Your task to perform on an android device: search for starred emails in the gmail app Image 0: 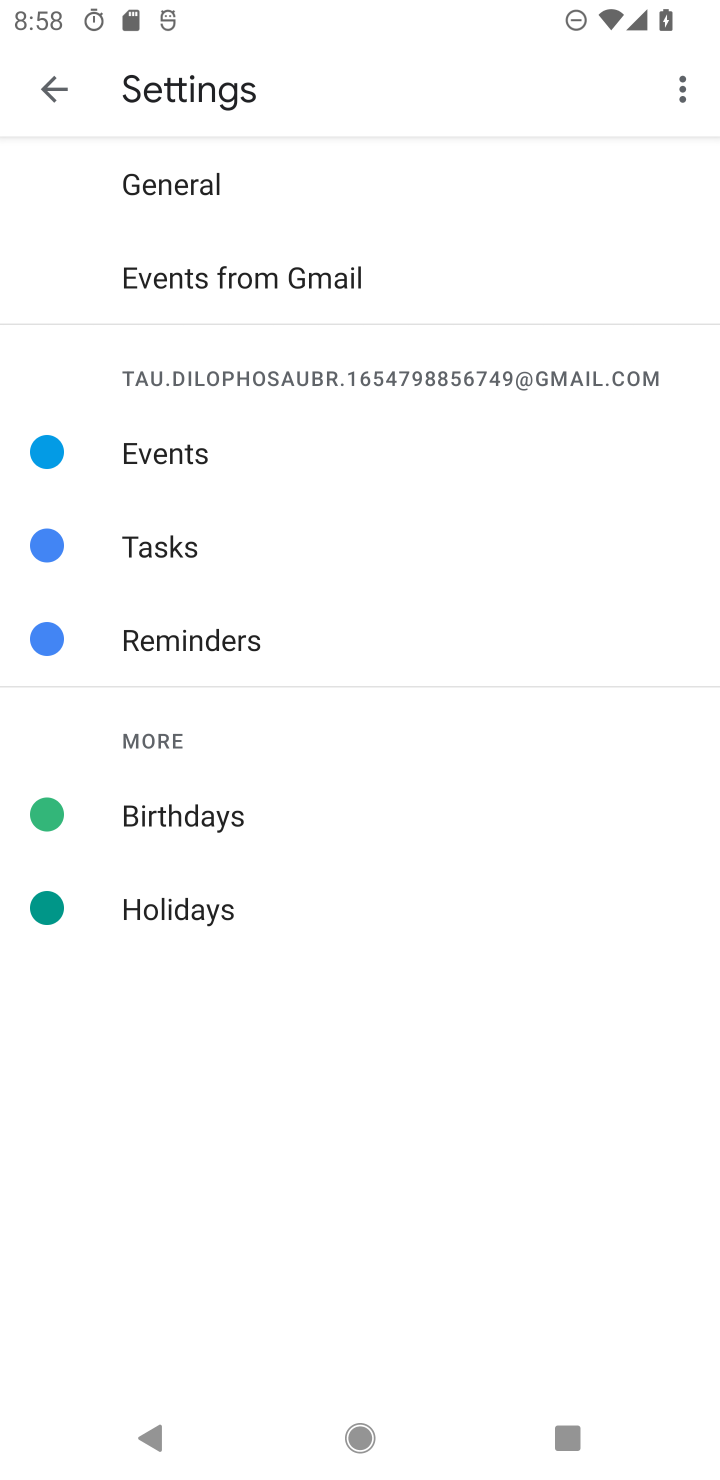
Step 0: press home button
Your task to perform on an android device: search for starred emails in the gmail app Image 1: 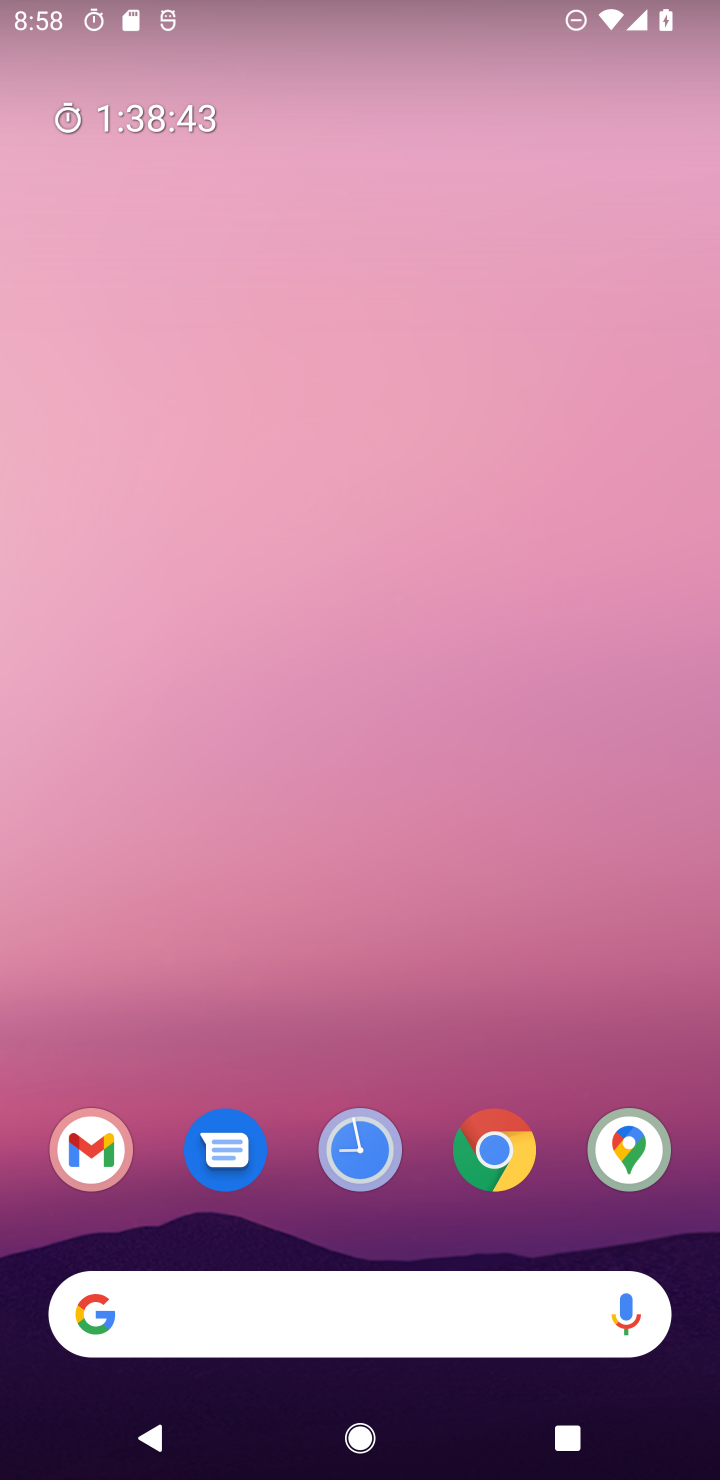
Step 1: drag from (247, 1236) to (460, 6)
Your task to perform on an android device: search for starred emails in the gmail app Image 2: 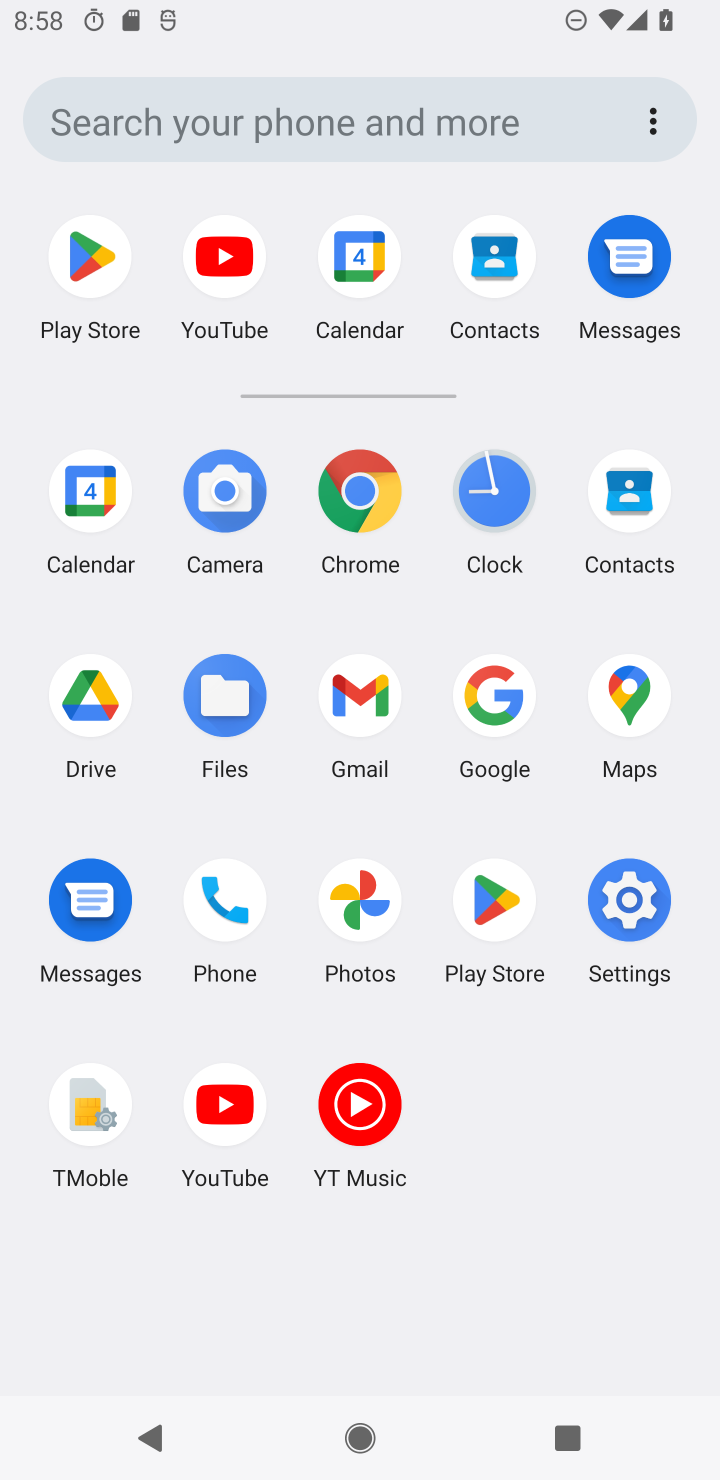
Step 2: click (372, 682)
Your task to perform on an android device: search for starred emails in the gmail app Image 3: 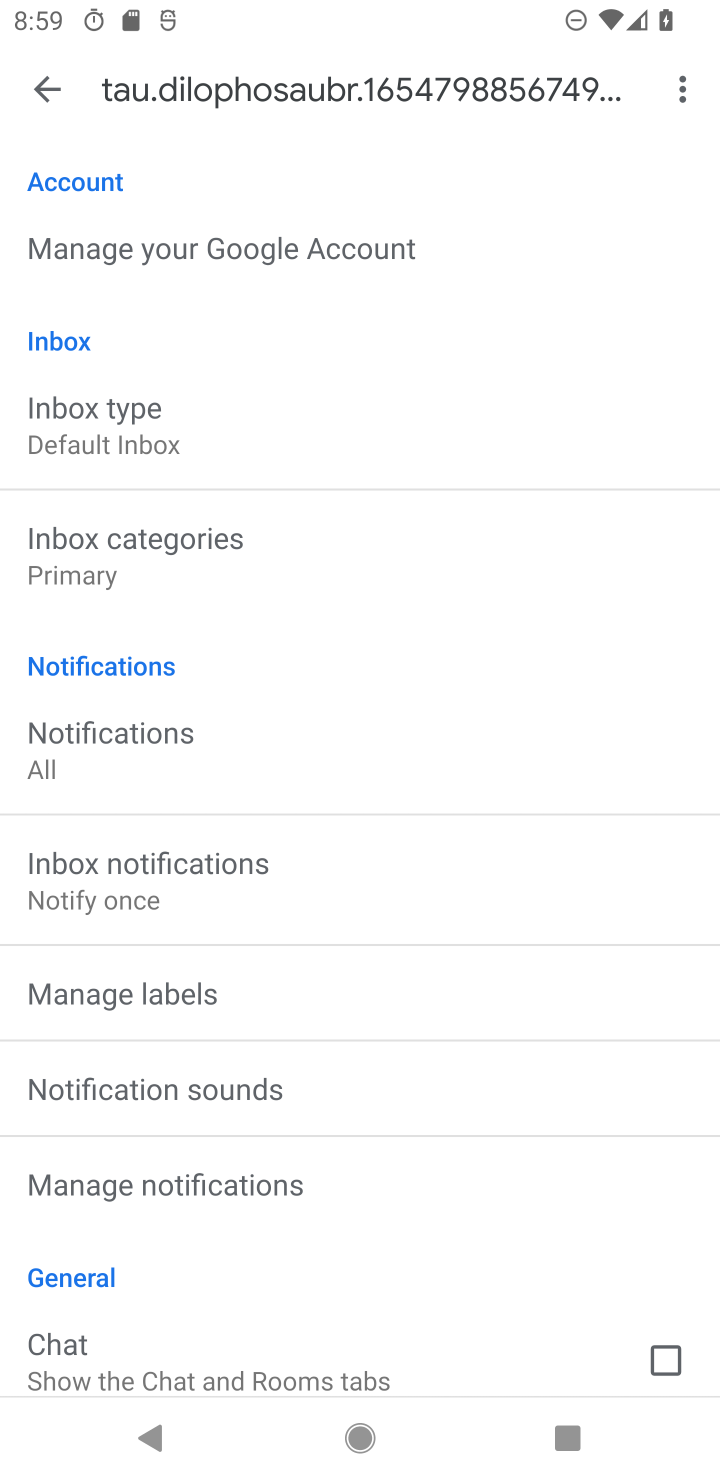
Step 3: press back button
Your task to perform on an android device: search for starred emails in the gmail app Image 4: 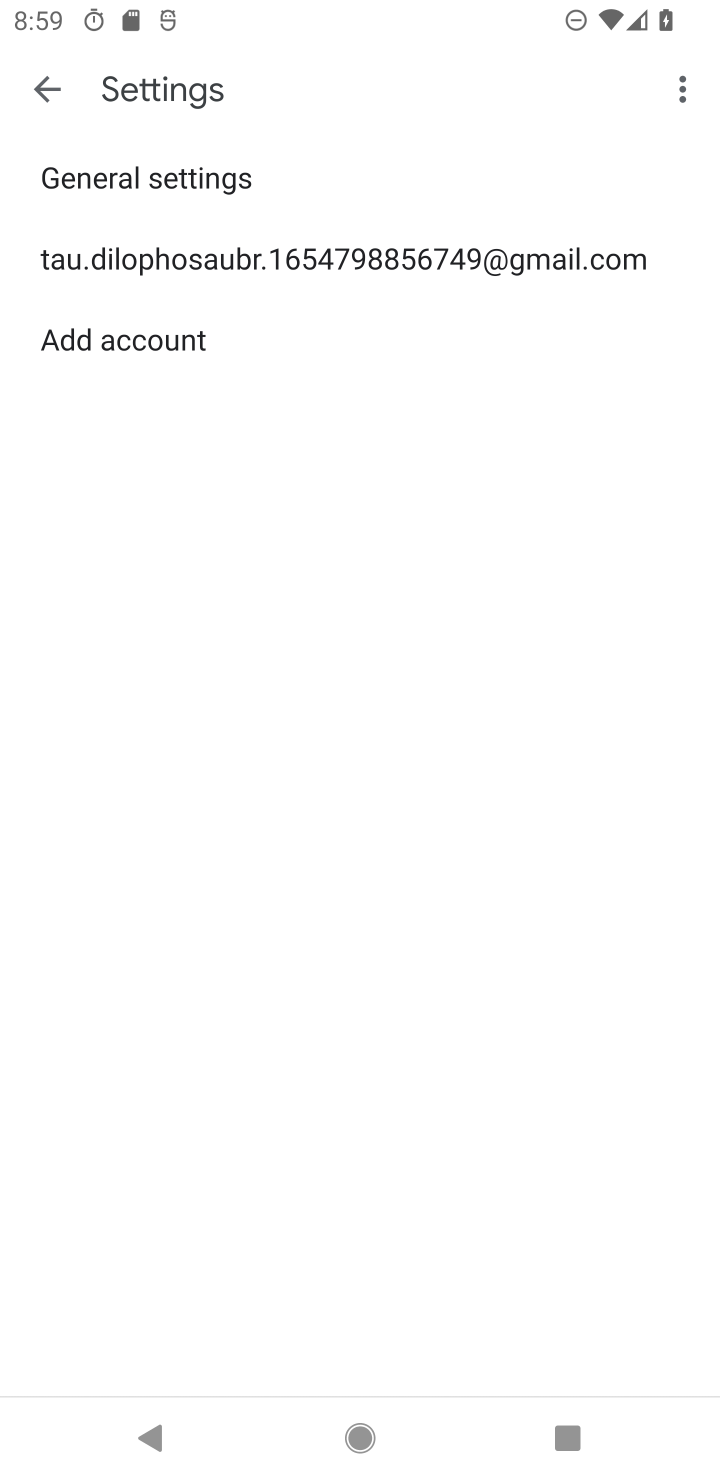
Step 4: press back button
Your task to perform on an android device: search for starred emails in the gmail app Image 5: 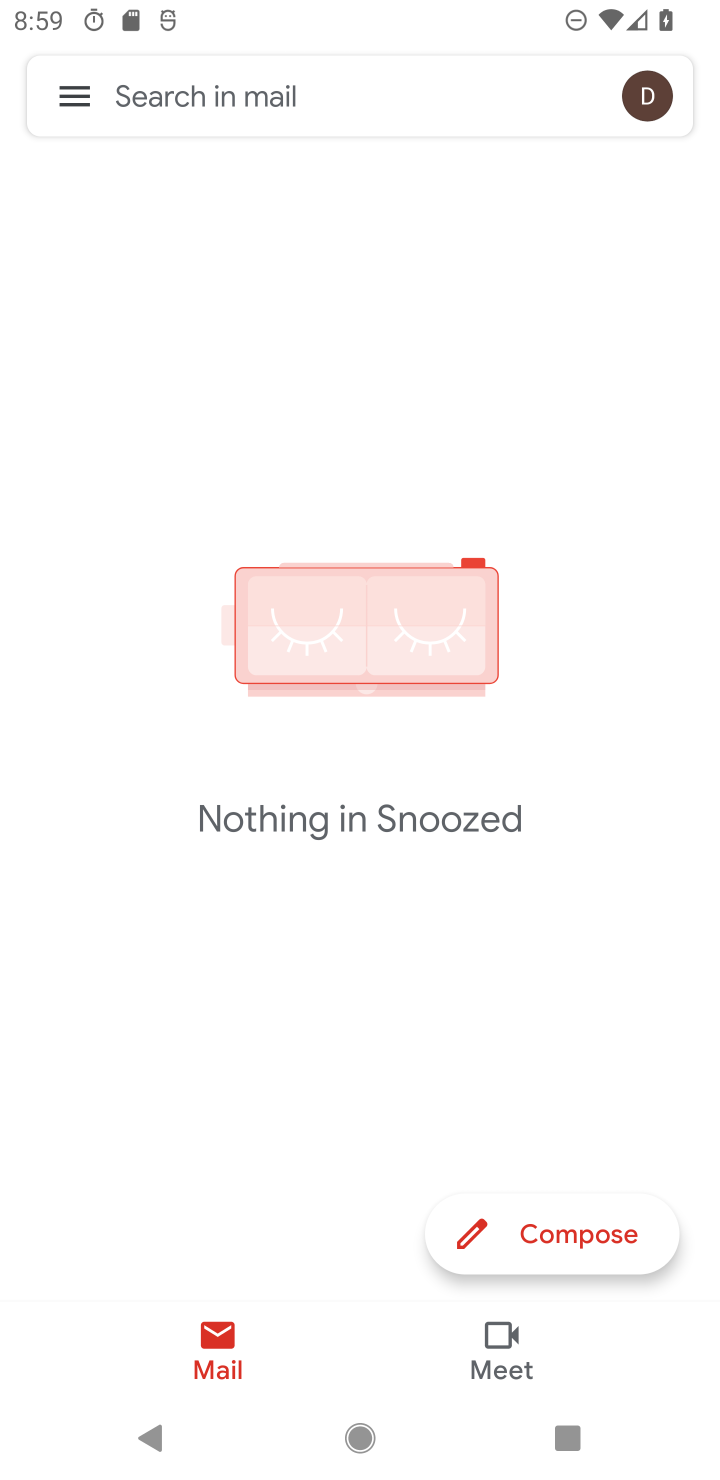
Step 5: click (66, 102)
Your task to perform on an android device: search for starred emails in the gmail app Image 6: 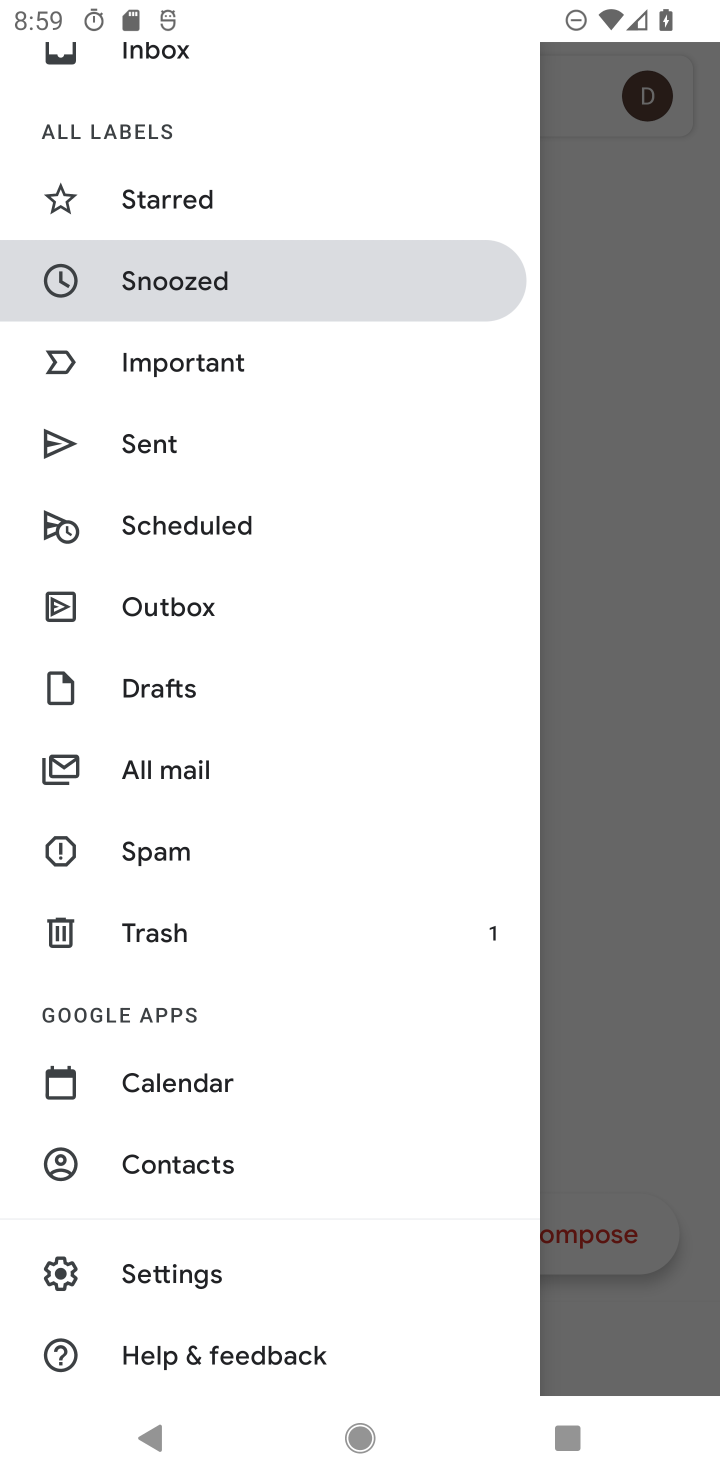
Step 6: click (201, 185)
Your task to perform on an android device: search for starred emails in the gmail app Image 7: 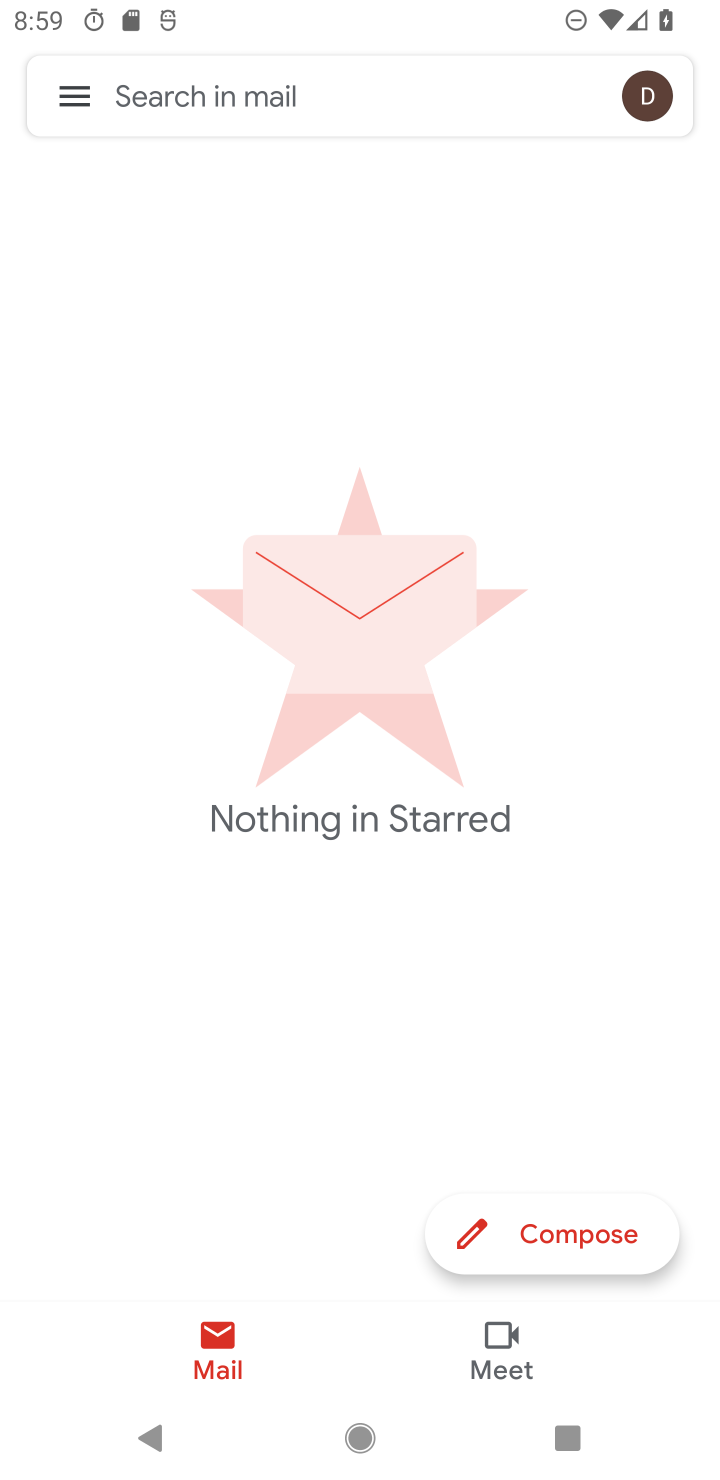
Step 7: task complete